Your task to perform on an android device: move an email to a new category in the gmail app Image 0: 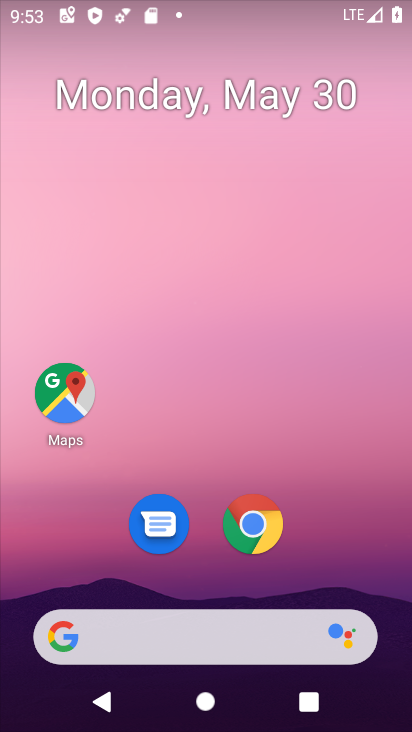
Step 0: drag from (217, 466) to (212, 11)
Your task to perform on an android device: move an email to a new category in the gmail app Image 1: 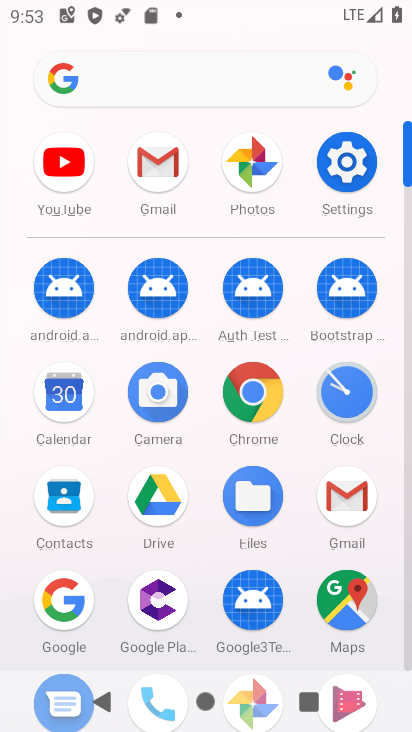
Step 1: click (169, 161)
Your task to perform on an android device: move an email to a new category in the gmail app Image 2: 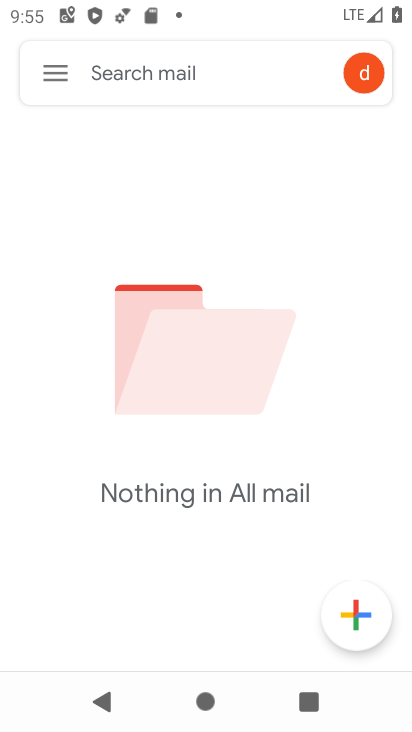
Step 2: task complete